Your task to perform on an android device: toggle notifications settings in the gmail app Image 0: 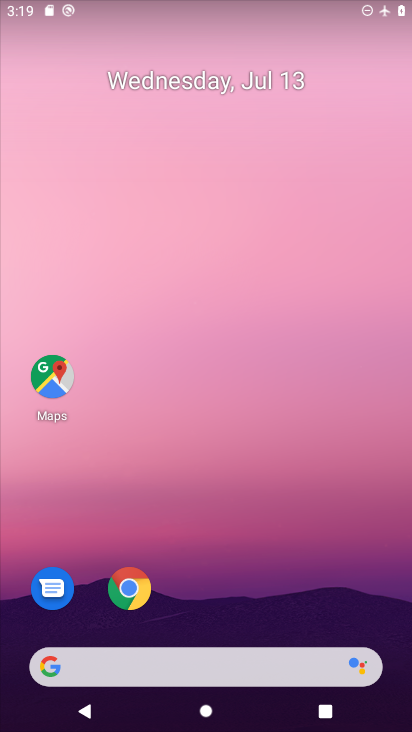
Step 0: drag from (190, 613) to (215, 168)
Your task to perform on an android device: toggle notifications settings in the gmail app Image 1: 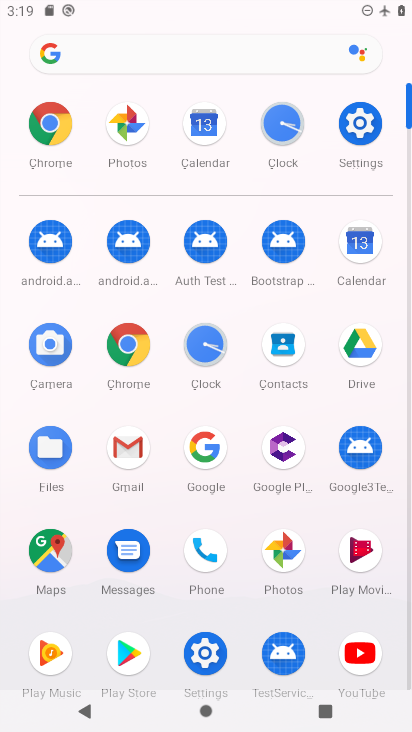
Step 1: click (133, 452)
Your task to perform on an android device: toggle notifications settings in the gmail app Image 2: 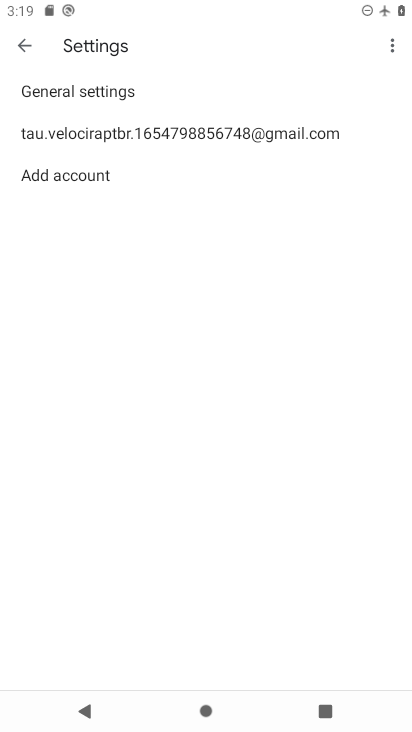
Step 2: click (21, 87)
Your task to perform on an android device: toggle notifications settings in the gmail app Image 3: 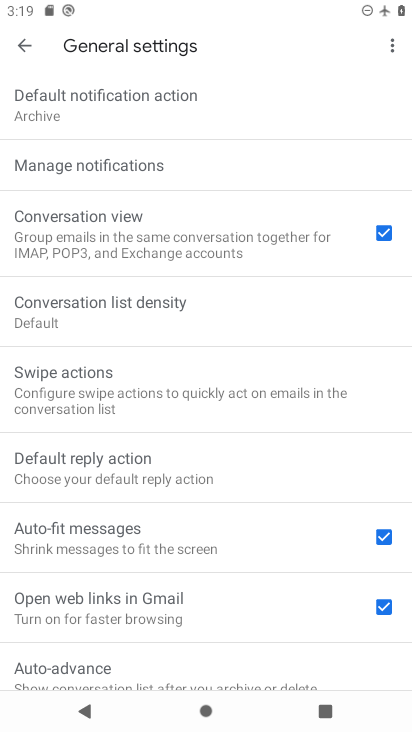
Step 3: click (129, 165)
Your task to perform on an android device: toggle notifications settings in the gmail app Image 4: 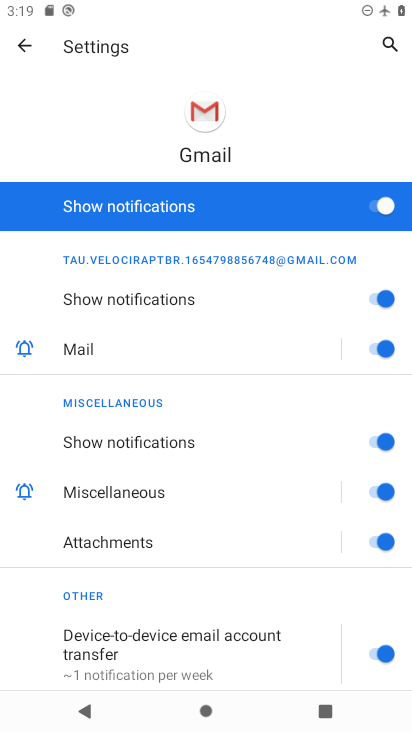
Step 4: click (360, 211)
Your task to perform on an android device: toggle notifications settings in the gmail app Image 5: 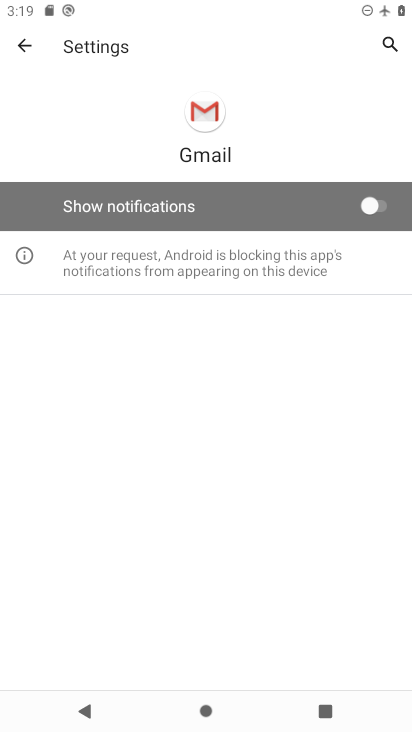
Step 5: task complete